Your task to perform on an android device: What's the weather? Image 0: 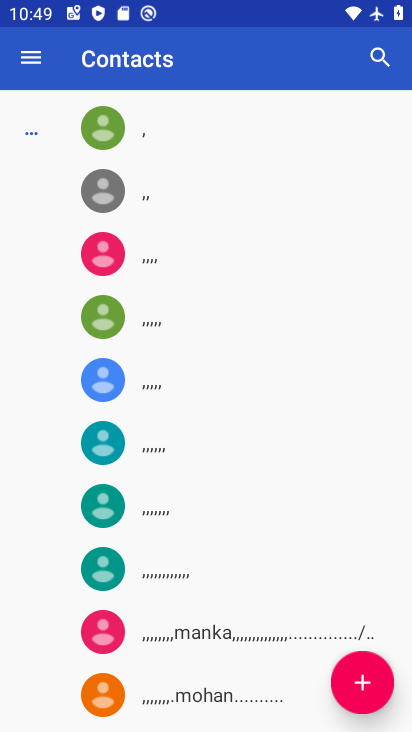
Step 0: press home button
Your task to perform on an android device: What's the weather? Image 1: 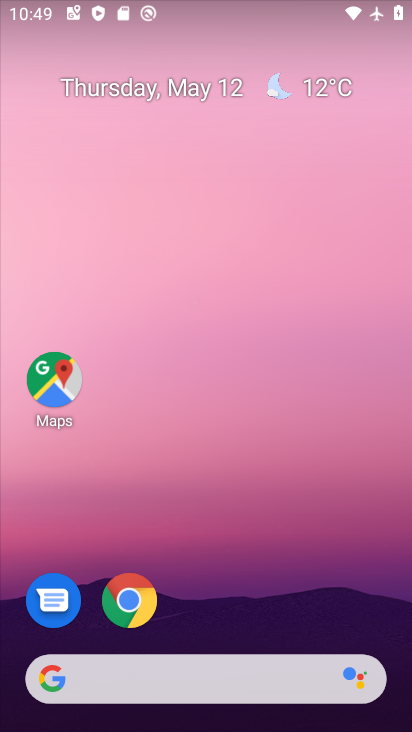
Step 1: click (319, 99)
Your task to perform on an android device: What's the weather? Image 2: 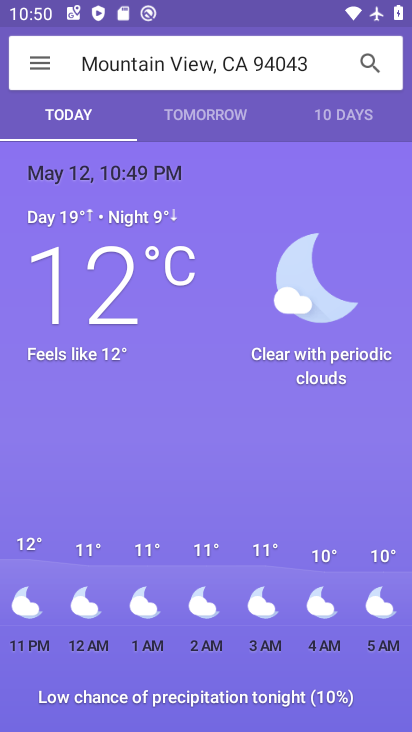
Step 2: task complete